Your task to perform on an android device: Go to privacy settings Image 0: 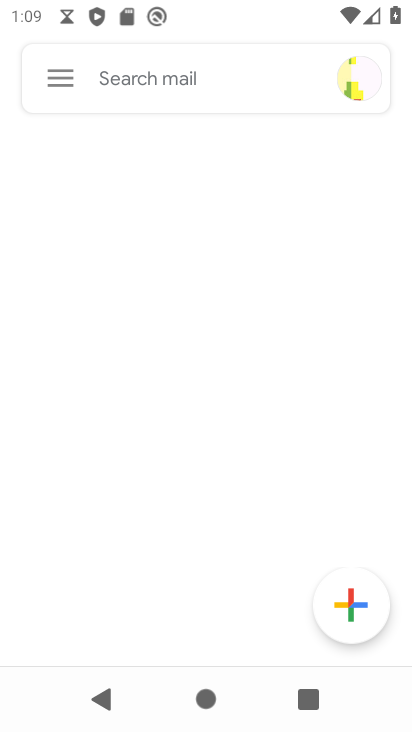
Step 0: press home button
Your task to perform on an android device: Go to privacy settings Image 1: 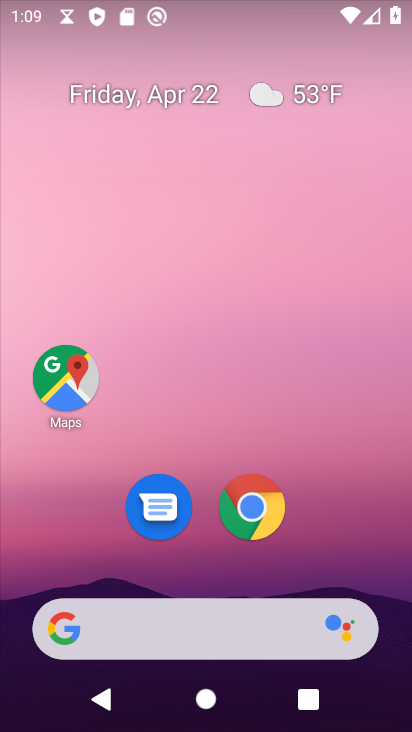
Step 1: click (247, 504)
Your task to perform on an android device: Go to privacy settings Image 2: 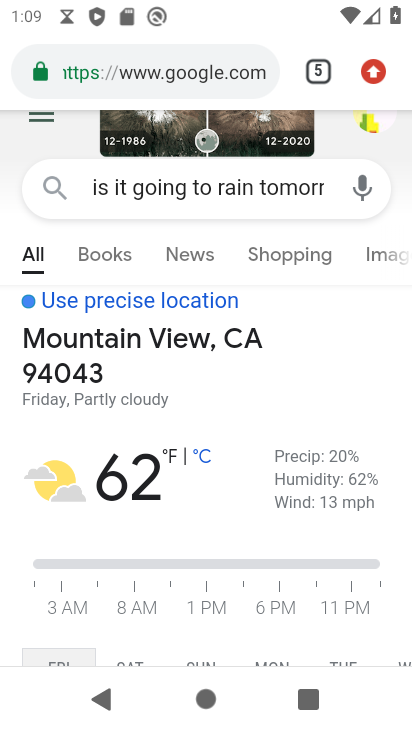
Step 2: drag from (369, 74) to (157, 508)
Your task to perform on an android device: Go to privacy settings Image 3: 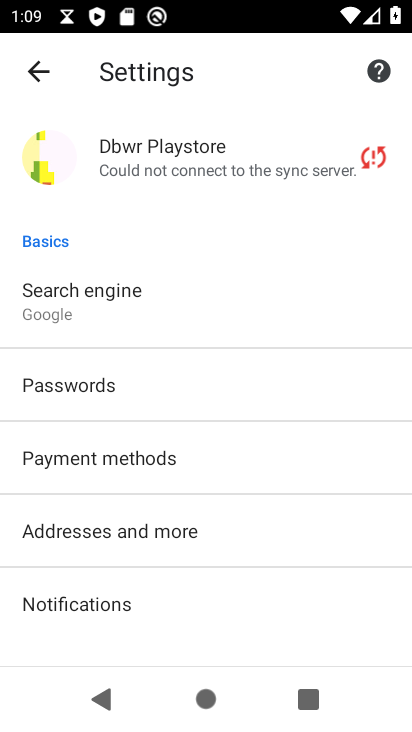
Step 3: drag from (225, 585) to (217, 245)
Your task to perform on an android device: Go to privacy settings Image 4: 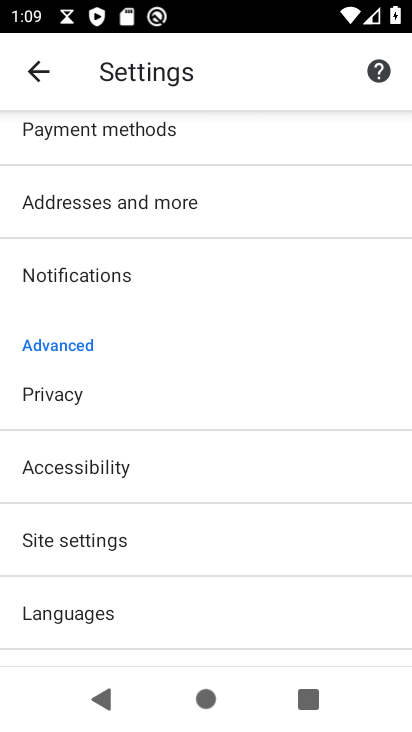
Step 4: click (54, 396)
Your task to perform on an android device: Go to privacy settings Image 5: 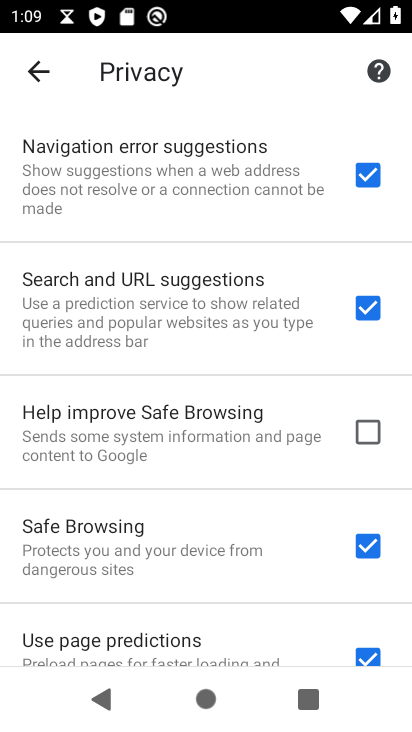
Step 5: task complete